Your task to perform on an android device: check the backup settings in the google photos Image 0: 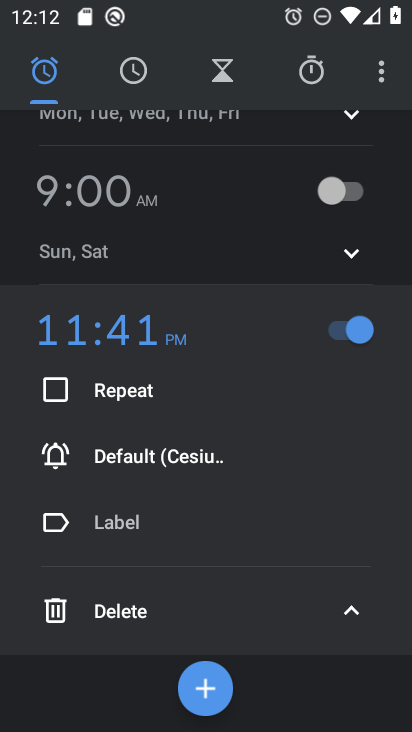
Step 0: press home button
Your task to perform on an android device: check the backup settings in the google photos Image 1: 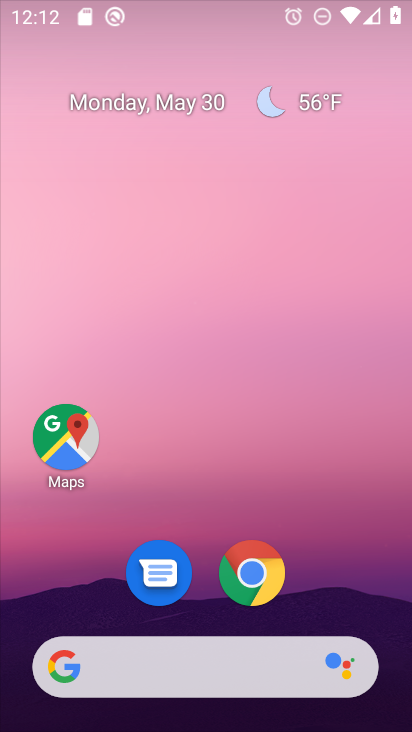
Step 1: drag from (353, 658) to (346, 1)
Your task to perform on an android device: check the backup settings in the google photos Image 2: 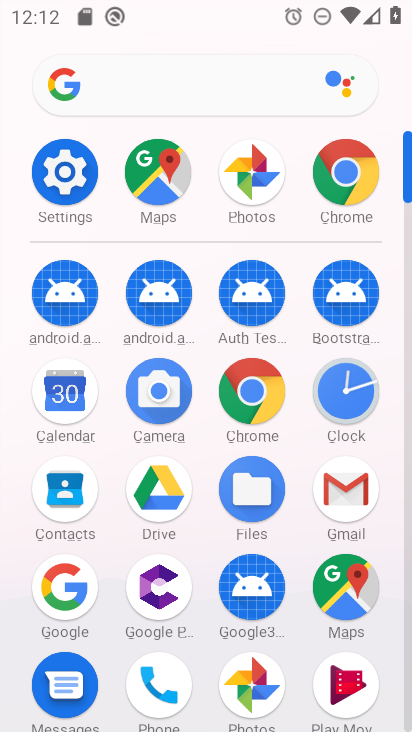
Step 2: click (259, 674)
Your task to perform on an android device: check the backup settings in the google photos Image 3: 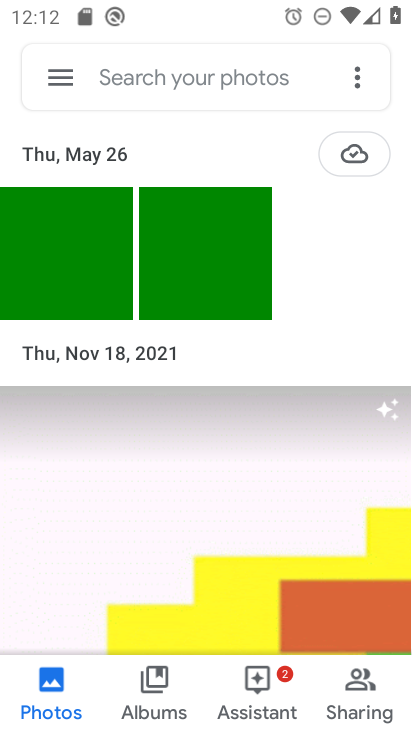
Step 3: click (56, 77)
Your task to perform on an android device: check the backup settings in the google photos Image 4: 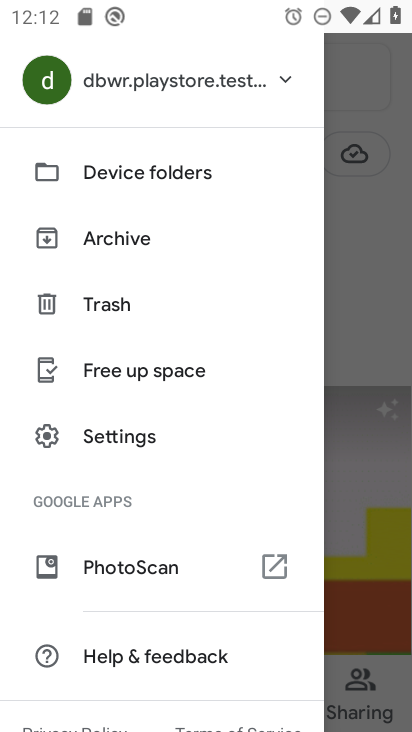
Step 4: click (140, 443)
Your task to perform on an android device: check the backup settings in the google photos Image 5: 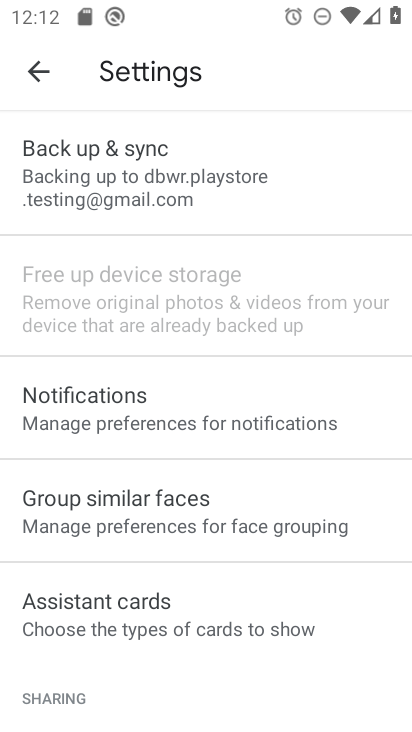
Step 5: click (213, 160)
Your task to perform on an android device: check the backup settings in the google photos Image 6: 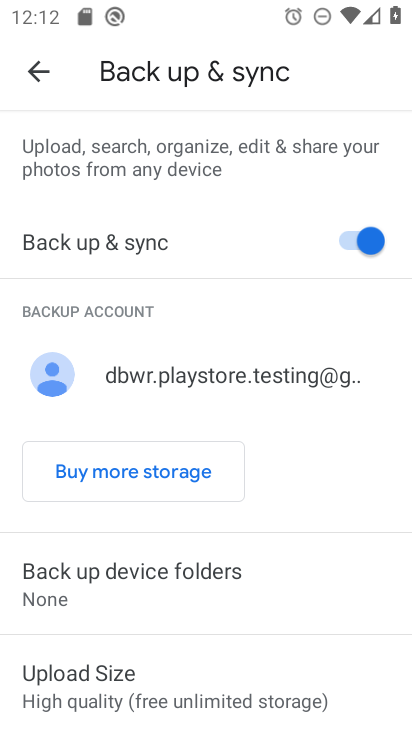
Step 6: task complete